Your task to perform on an android device: see sites visited before in the chrome app Image 0: 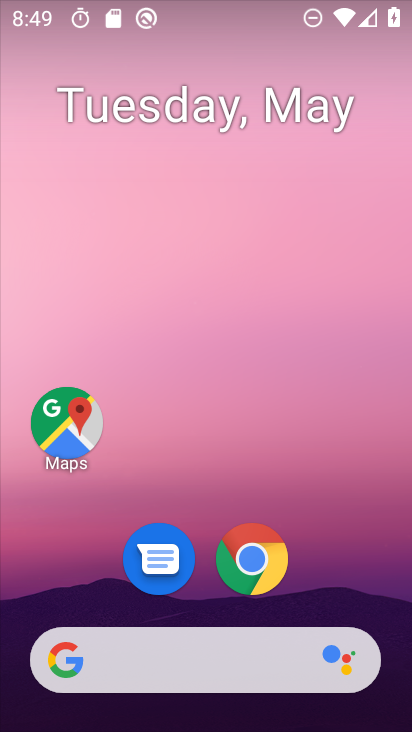
Step 0: drag from (309, 208) to (246, 64)
Your task to perform on an android device: see sites visited before in the chrome app Image 1: 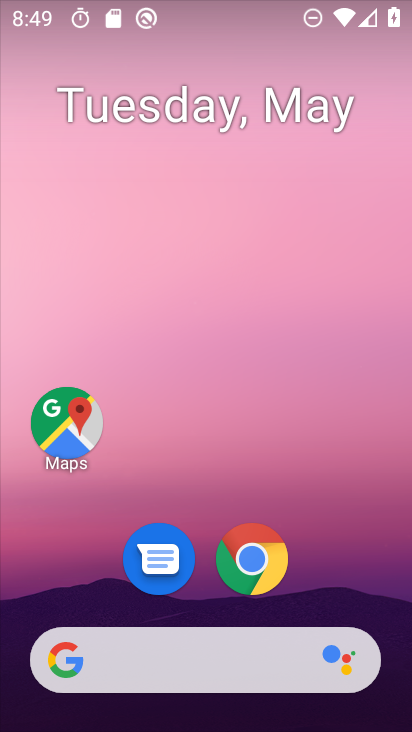
Step 1: drag from (372, 601) to (254, 14)
Your task to perform on an android device: see sites visited before in the chrome app Image 2: 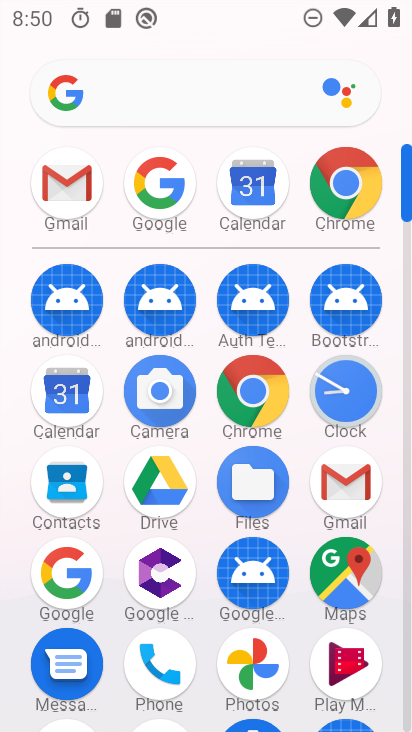
Step 2: click (245, 374)
Your task to perform on an android device: see sites visited before in the chrome app Image 3: 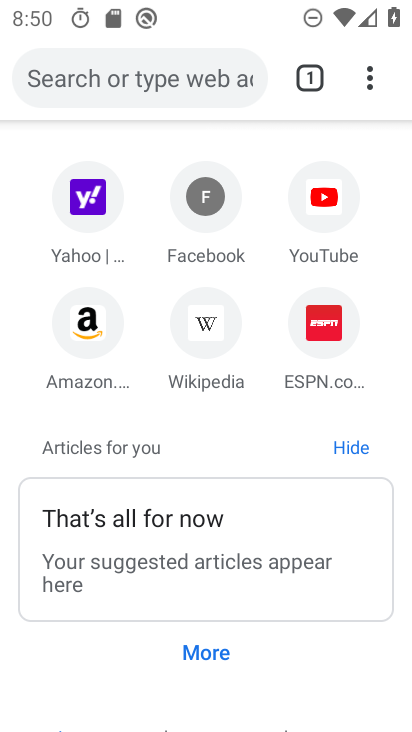
Step 3: click (376, 74)
Your task to perform on an android device: see sites visited before in the chrome app Image 4: 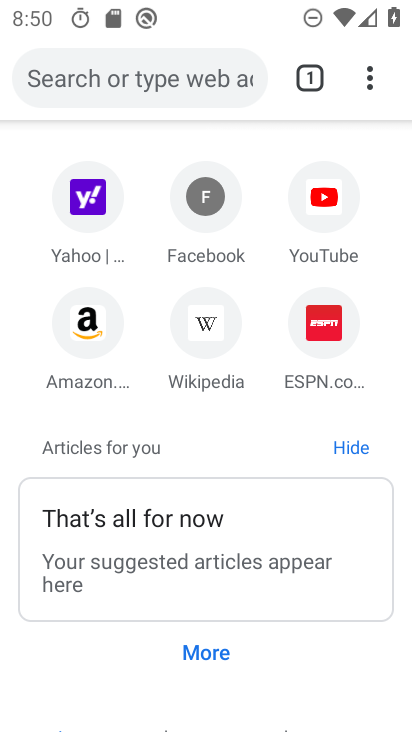
Step 4: click (372, 74)
Your task to perform on an android device: see sites visited before in the chrome app Image 5: 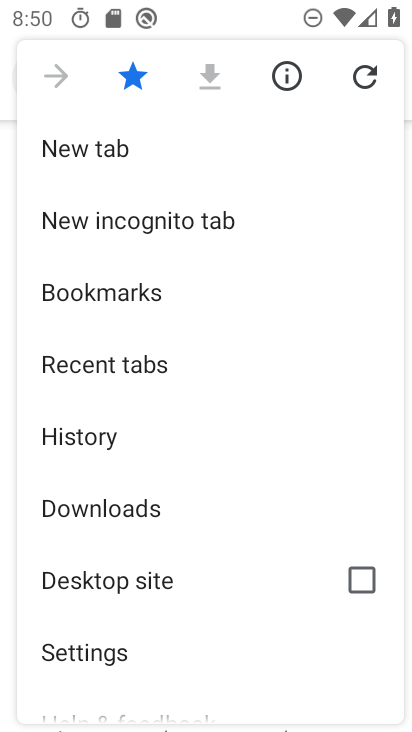
Step 5: click (107, 438)
Your task to perform on an android device: see sites visited before in the chrome app Image 6: 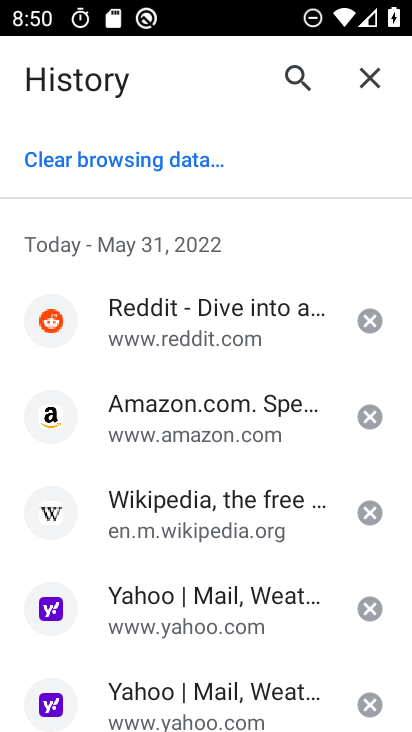
Step 6: click (199, 333)
Your task to perform on an android device: see sites visited before in the chrome app Image 7: 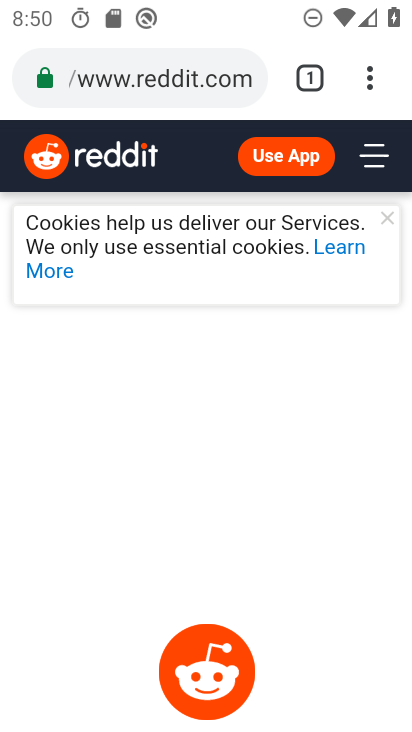
Step 7: task complete